Your task to perform on an android device: turn off picture-in-picture Image 0: 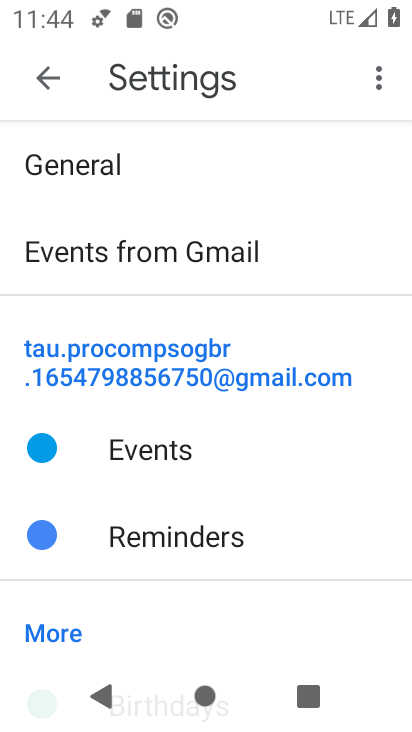
Step 0: press home button
Your task to perform on an android device: turn off picture-in-picture Image 1: 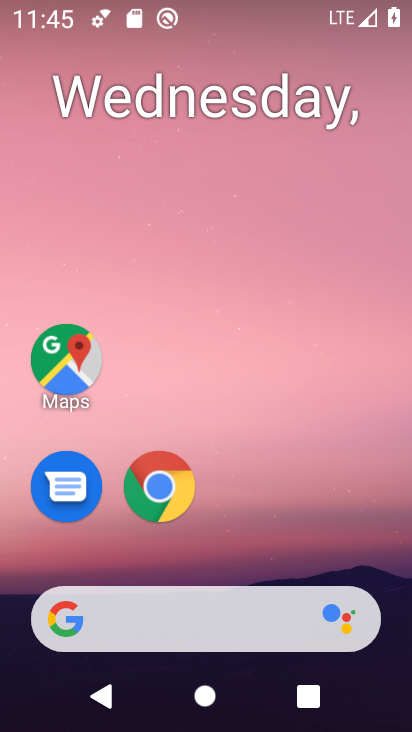
Step 1: drag from (384, 557) to (383, 135)
Your task to perform on an android device: turn off picture-in-picture Image 2: 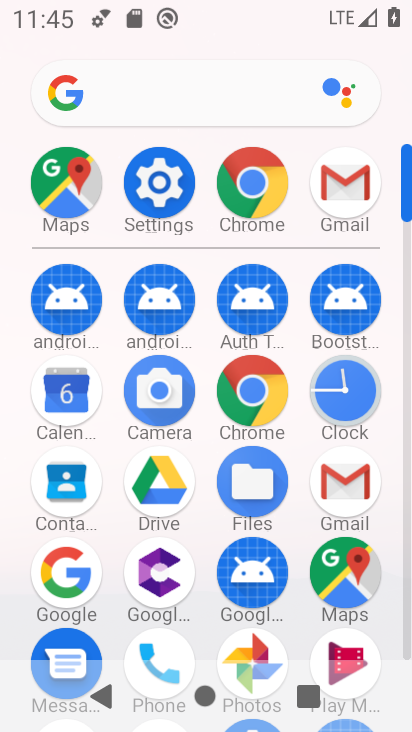
Step 2: click (173, 185)
Your task to perform on an android device: turn off picture-in-picture Image 3: 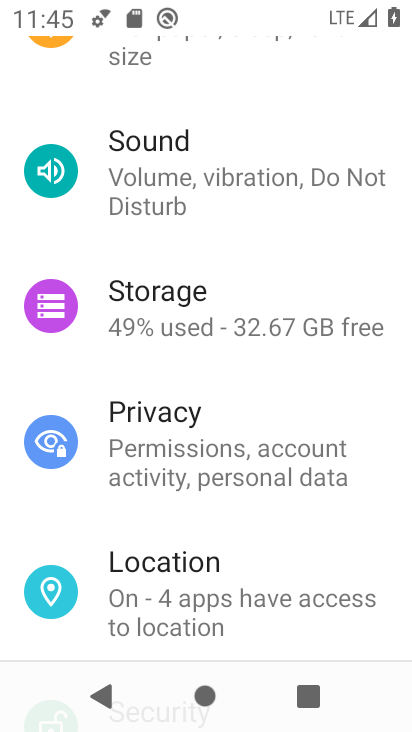
Step 3: drag from (364, 248) to (379, 372)
Your task to perform on an android device: turn off picture-in-picture Image 4: 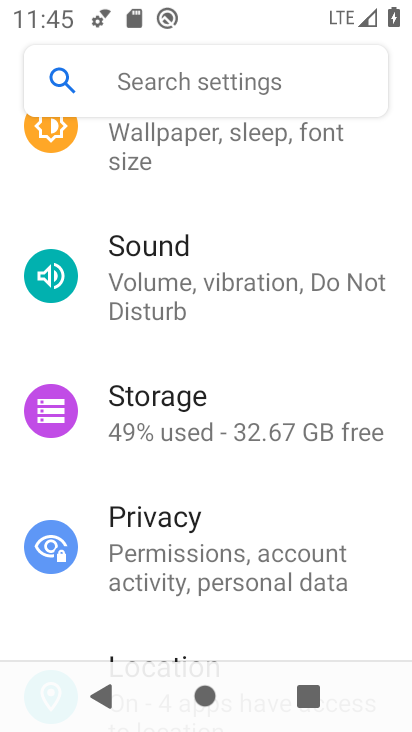
Step 4: drag from (398, 215) to (399, 351)
Your task to perform on an android device: turn off picture-in-picture Image 5: 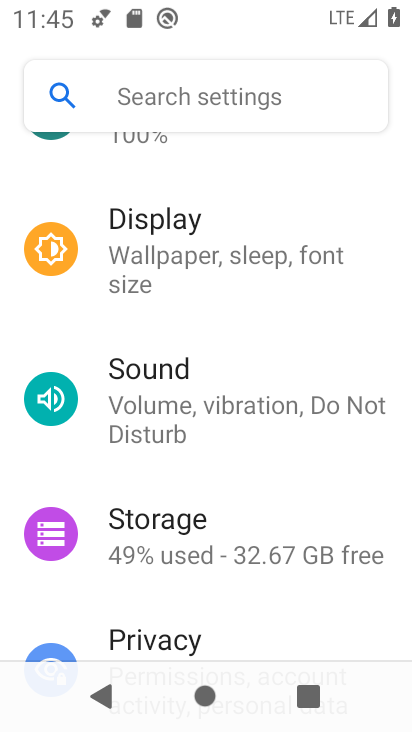
Step 5: drag from (372, 192) to (374, 330)
Your task to perform on an android device: turn off picture-in-picture Image 6: 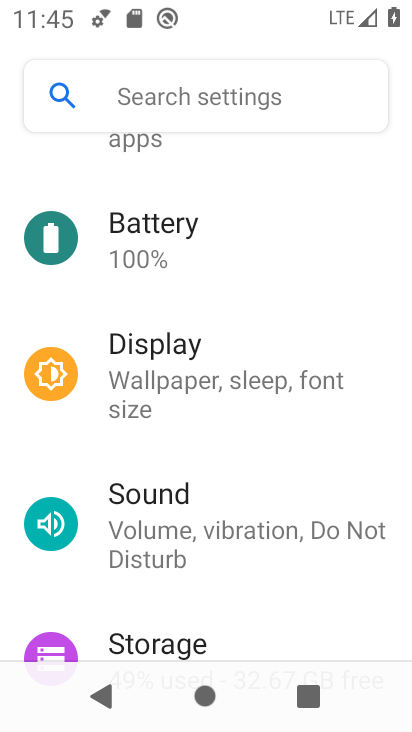
Step 6: drag from (359, 199) to (373, 344)
Your task to perform on an android device: turn off picture-in-picture Image 7: 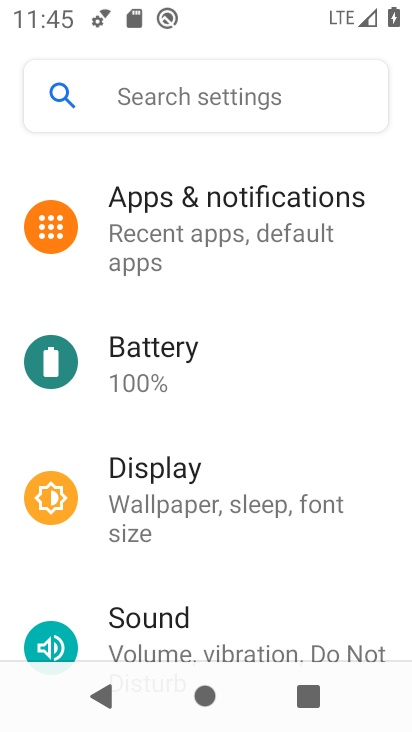
Step 7: drag from (382, 186) to (384, 357)
Your task to perform on an android device: turn off picture-in-picture Image 8: 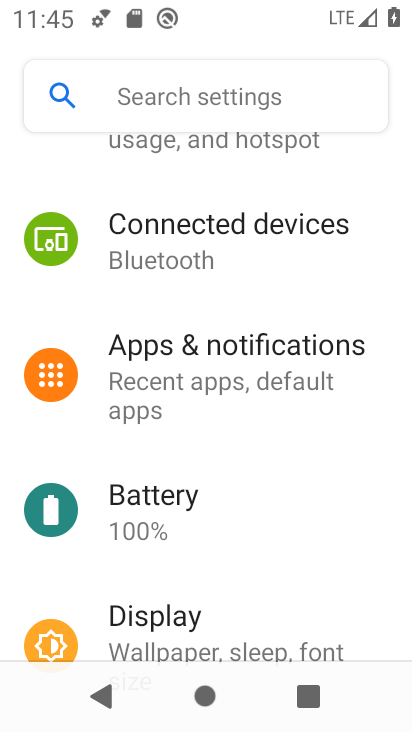
Step 8: drag from (371, 230) to (374, 412)
Your task to perform on an android device: turn off picture-in-picture Image 9: 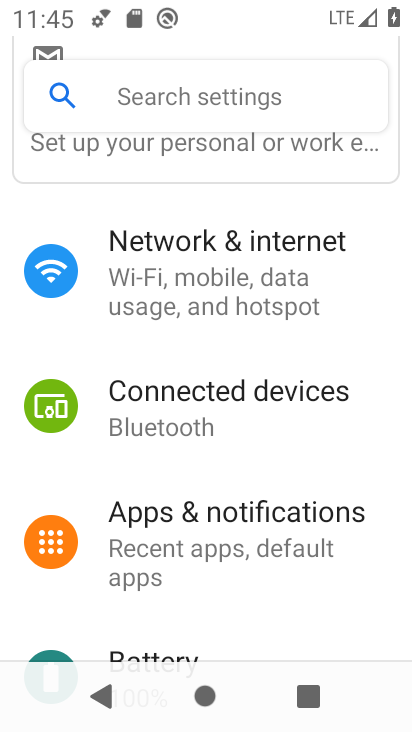
Step 9: click (304, 555)
Your task to perform on an android device: turn off picture-in-picture Image 10: 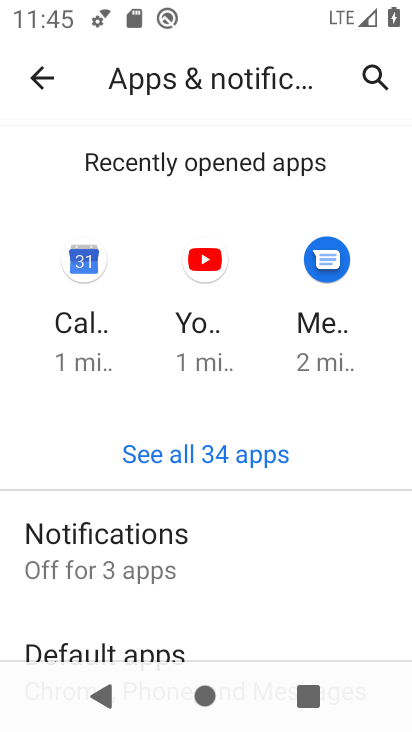
Step 10: drag from (304, 555) to (305, 437)
Your task to perform on an android device: turn off picture-in-picture Image 11: 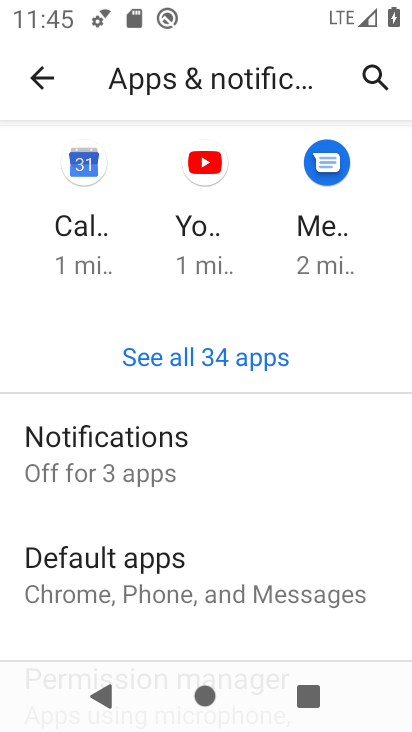
Step 11: drag from (303, 519) to (324, 311)
Your task to perform on an android device: turn off picture-in-picture Image 12: 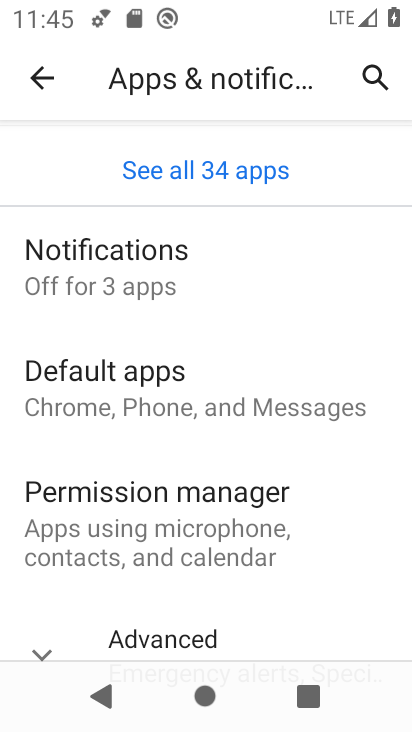
Step 12: drag from (339, 577) to (343, 390)
Your task to perform on an android device: turn off picture-in-picture Image 13: 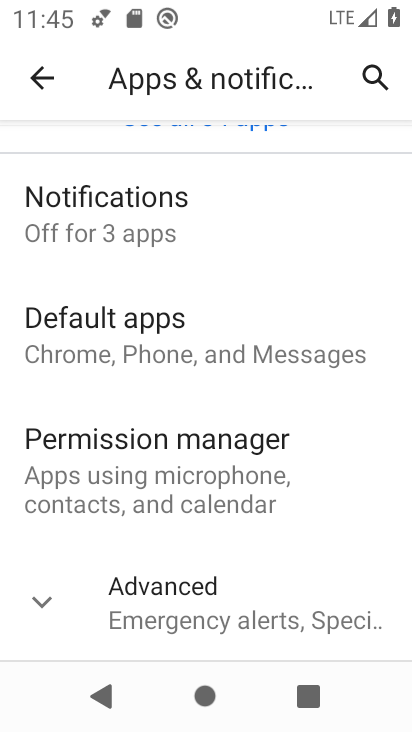
Step 13: click (292, 632)
Your task to perform on an android device: turn off picture-in-picture Image 14: 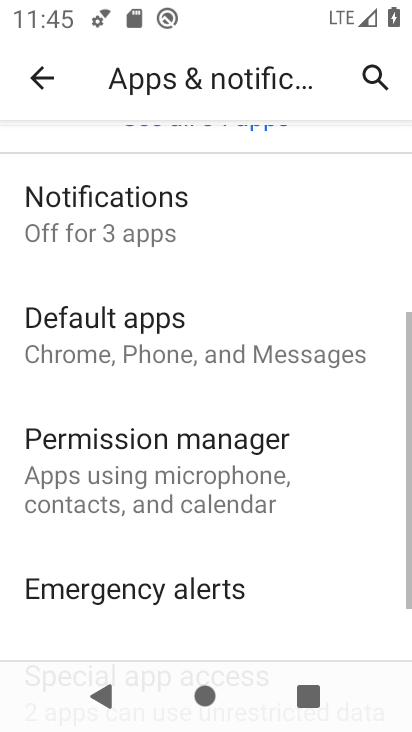
Step 14: drag from (293, 627) to (319, 478)
Your task to perform on an android device: turn off picture-in-picture Image 15: 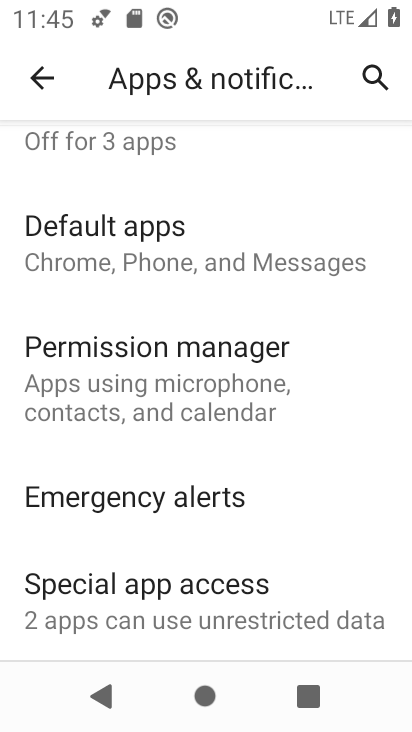
Step 15: click (254, 613)
Your task to perform on an android device: turn off picture-in-picture Image 16: 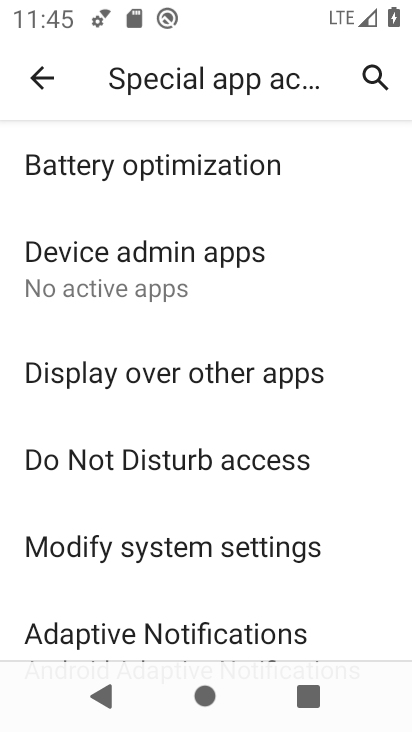
Step 16: drag from (379, 579) to (374, 453)
Your task to perform on an android device: turn off picture-in-picture Image 17: 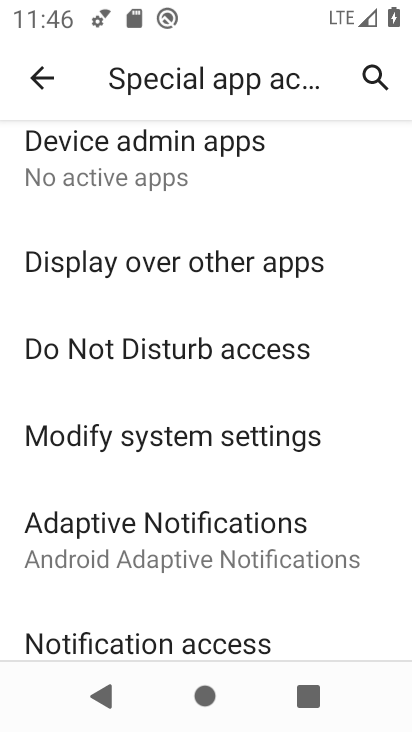
Step 17: drag from (389, 615) to (376, 444)
Your task to perform on an android device: turn off picture-in-picture Image 18: 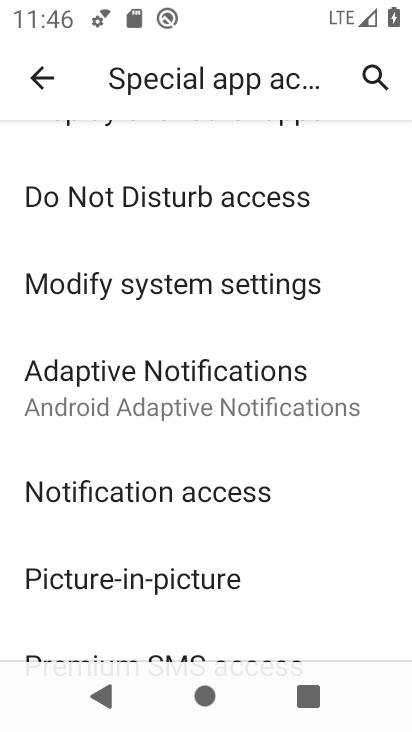
Step 18: drag from (364, 523) to (369, 358)
Your task to perform on an android device: turn off picture-in-picture Image 19: 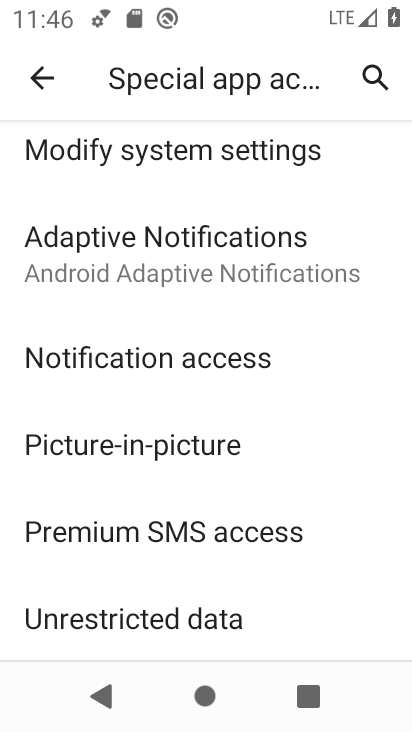
Step 19: click (247, 455)
Your task to perform on an android device: turn off picture-in-picture Image 20: 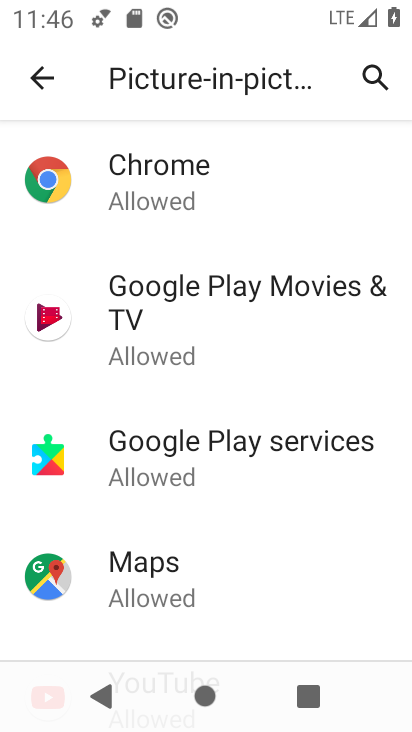
Step 20: drag from (351, 544) to (346, 352)
Your task to perform on an android device: turn off picture-in-picture Image 21: 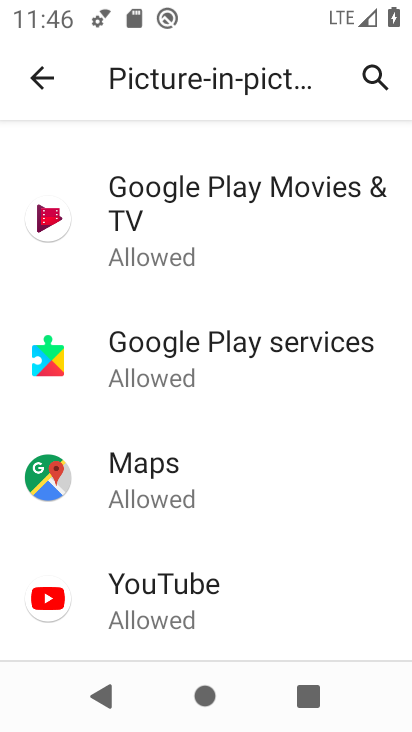
Step 21: click (273, 589)
Your task to perform on an android device: turn off picture-in-picture Image 22: 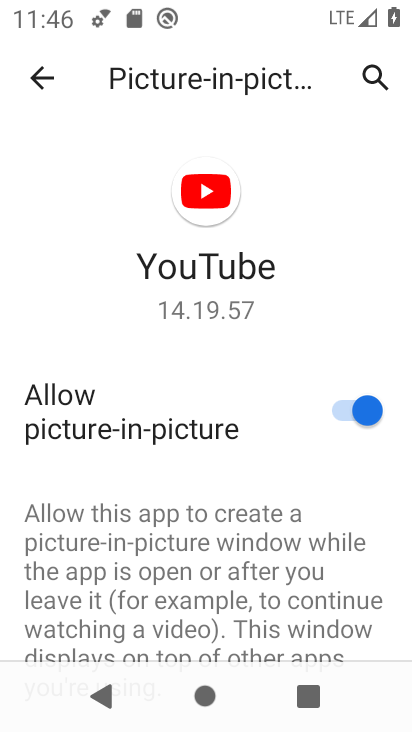
Step 22: click (368, 413)
Your task to perform on an android device: turn off picture-in-picture Image 23: 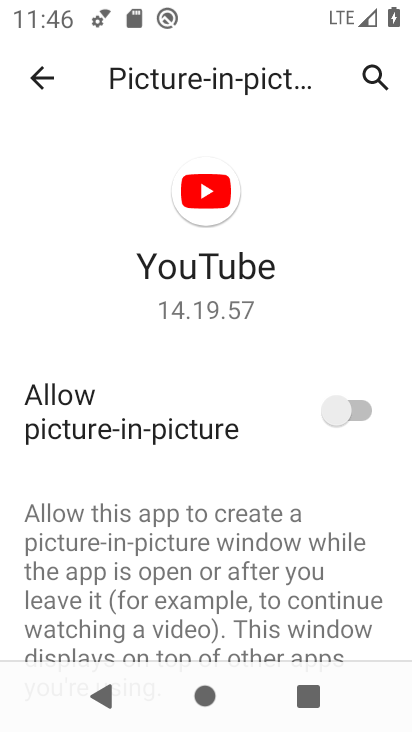
Step 23: task complete